Your task to perform on an android device: change notifications settings Image 0: 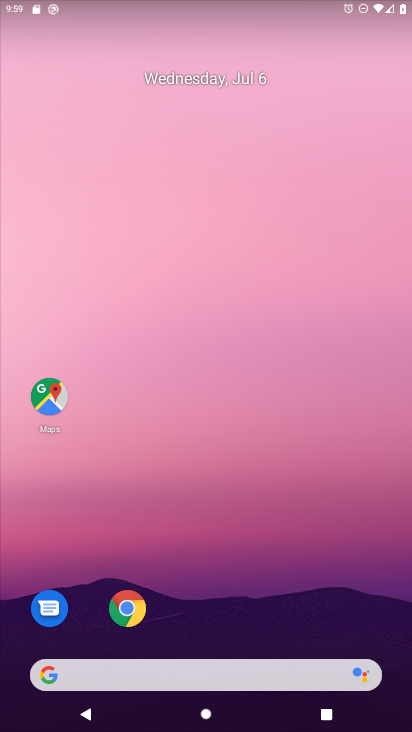
Step 0: drag from (166, 660) to (184, 179)
Your task to perform on an android device: change notifications settings Image 1: 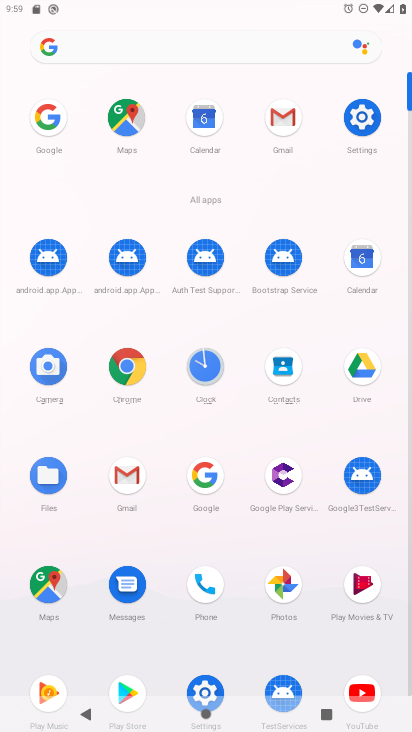
Step 1: click (370, 113)
Your task to perform on an android device: change notifications settings Image 2: 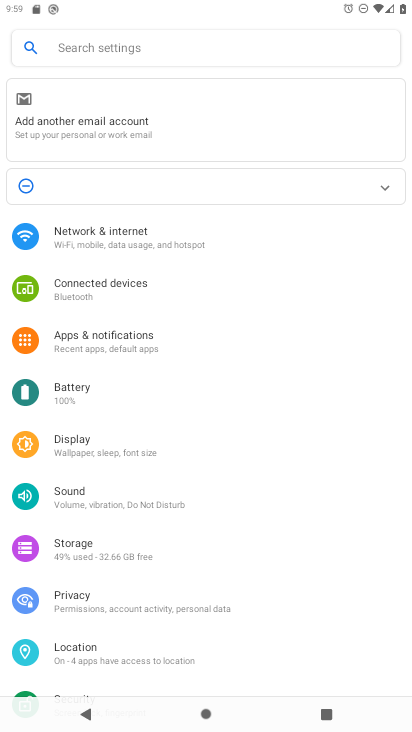
Step 2: click (98, 347)
Your task to perform on an android device: change notifications settings Image 3: 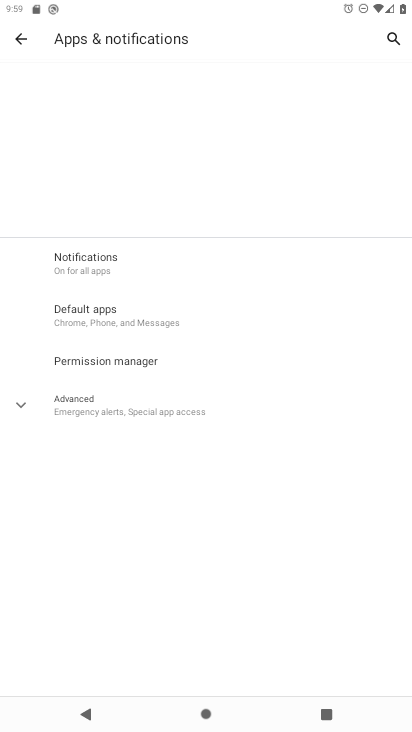
Step 3: click (109, 389)
Your task to perform on an android device: change notifications settings Image 4: 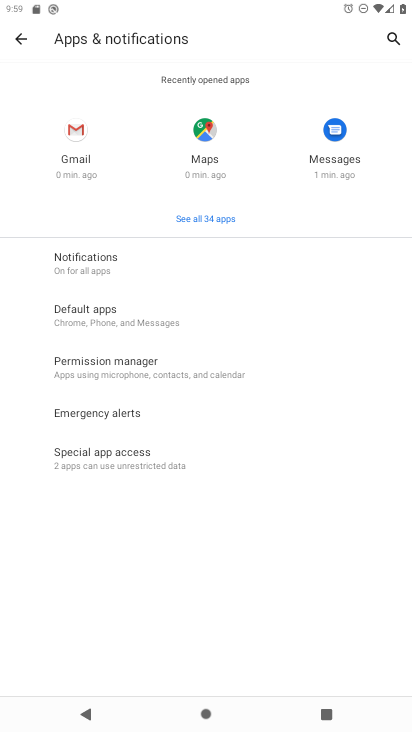
Step 4: click (93, 253)
Your task to perform on an android device: change notifications settings Image 5: 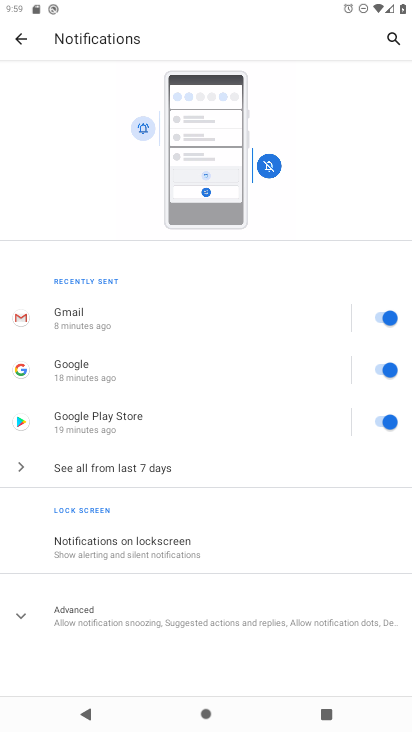
Step 5: click (101, 473)
Your task to perform on an android device: change notifications settings Image 6: 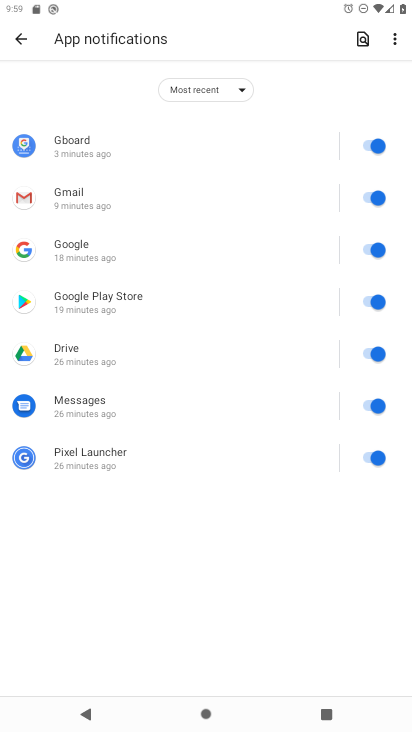
Step 6: click (371, 146)
Your task to perform on an android device: change notifications settings Image 7: 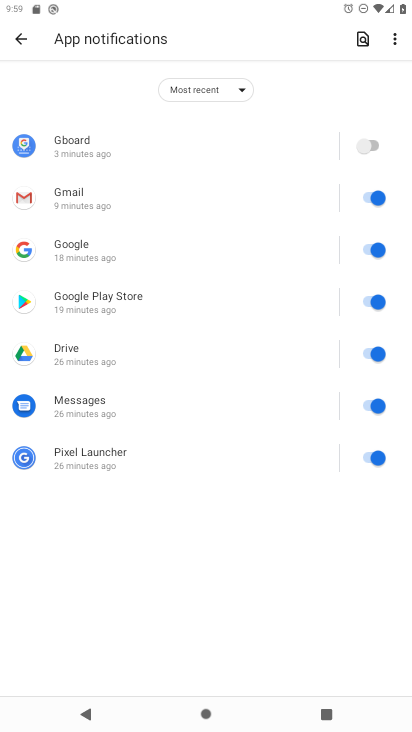
Step 7: click (366, 197)
Your task to perform on an android device: change notifications settings Image 8: 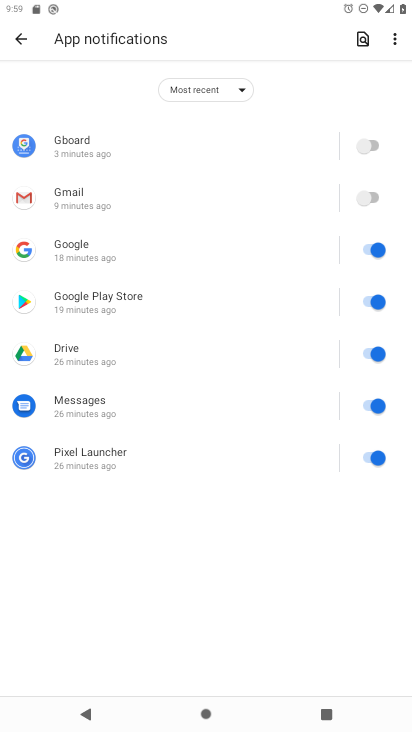
Step 8: click (368, 251)
Your task to perform on an android device: change notifications settings Image 9: 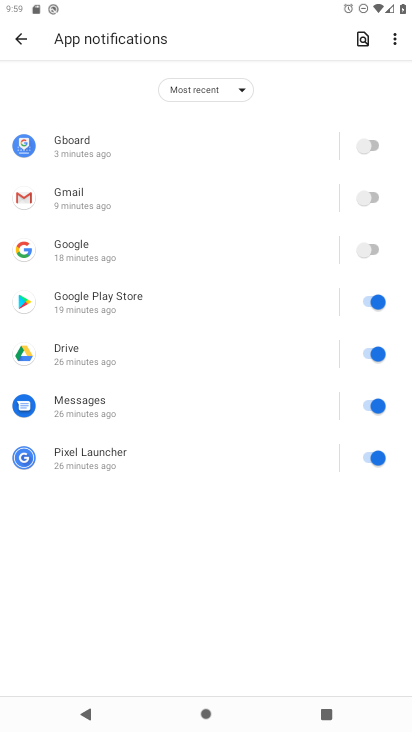
Step 9: click (370, 303)
Your task to perform on an android device: change notifications settings Image 10: 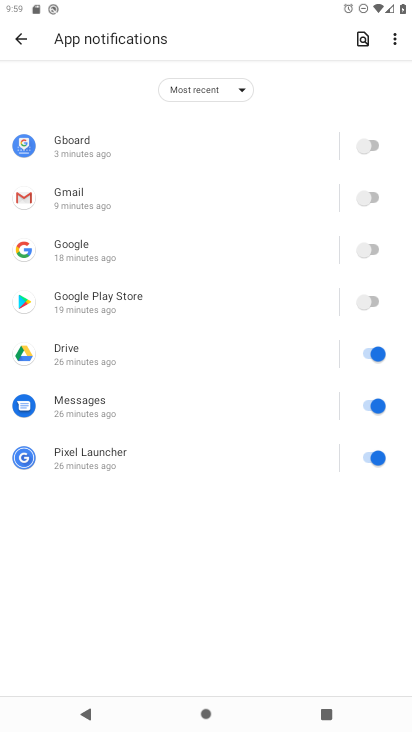
Step 10: click (371, 357)
Your task to perform on an android device: change notifications settings Image 11: 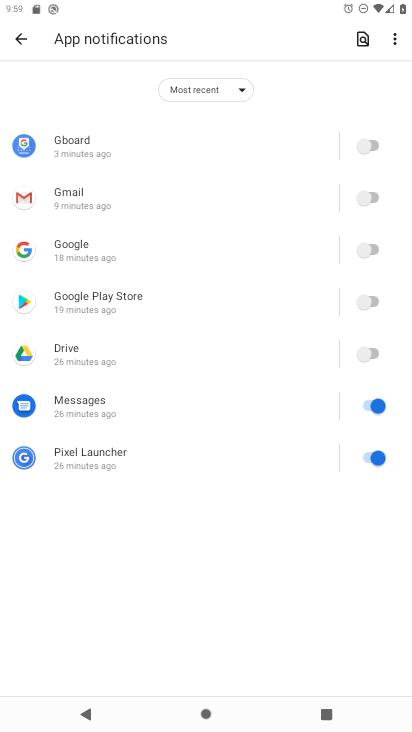
Step 11: click (369, 400)
Your task to perform on an android device: change notifications settings Image 12: 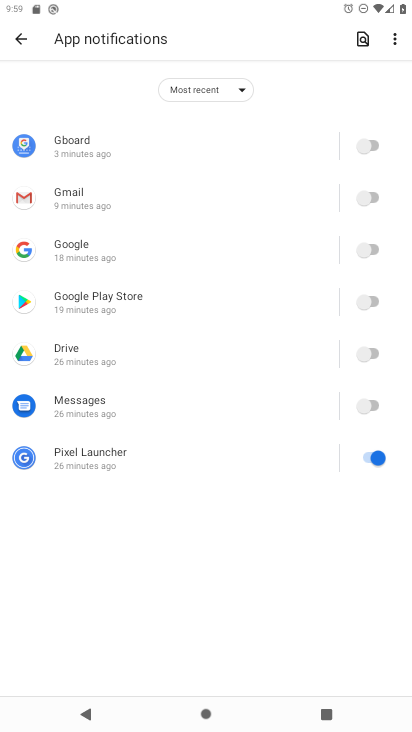
Step 12: click (372, 455)
Your task to perform on an android device: change notifications settings Image 13: 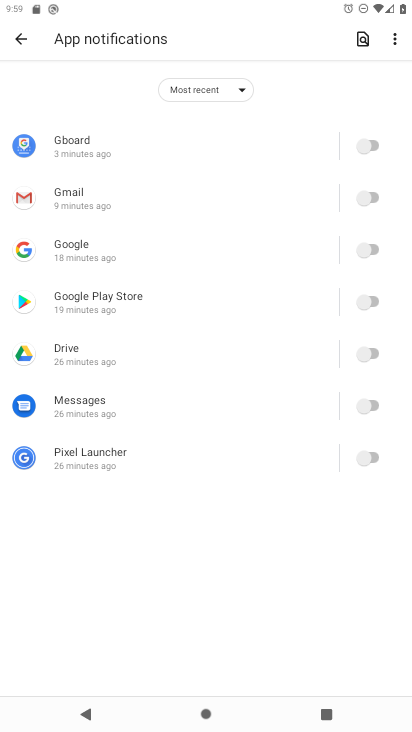
Step 13: task complete